Your task to perform on an android device: toggle airplane mode Image 0: 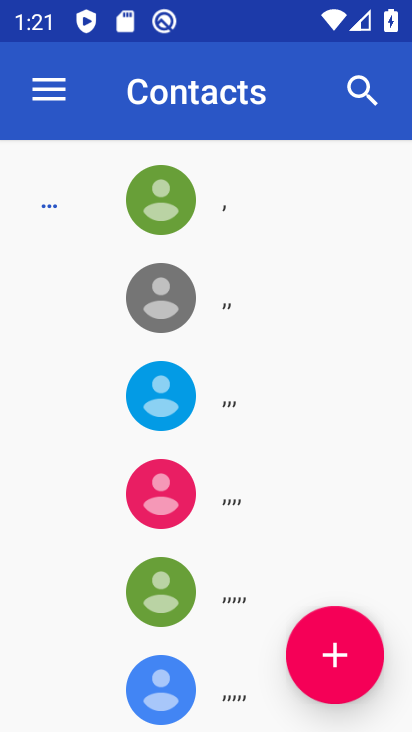
Step 0: press home button
Your task to perform on an android device: toggle airplane mode Image 1: 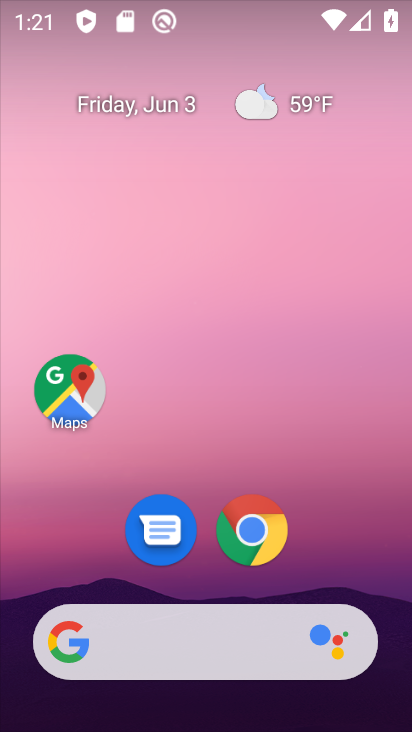
Step 1: drag from (321, 571) to (250, 0)
Your task to perform on an android device: toggle airplane mode Image 2: 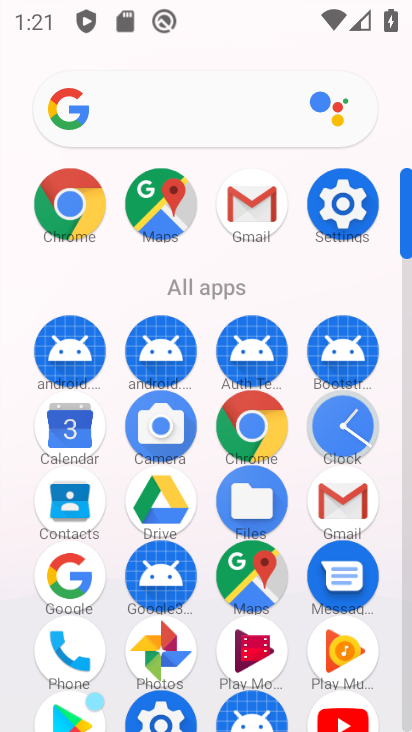
Step 2: click (333, 214)
Your task to perform on an android device: toggle airplane mode Image 3: 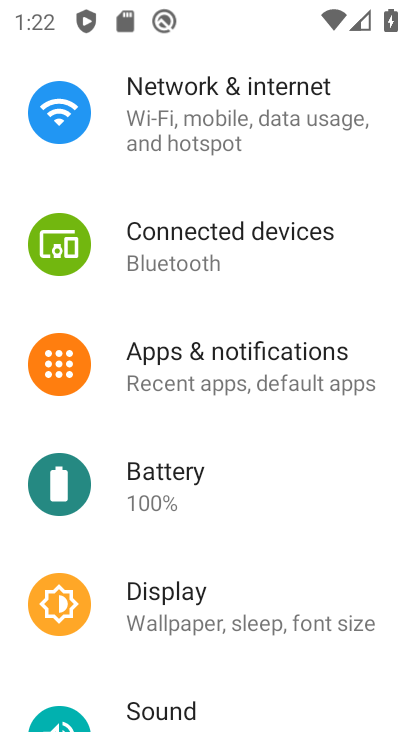
Step 3: drag from (203, 178) to (218, 592)
Your task to perform on an android device: toggle airplane mode Image 4: 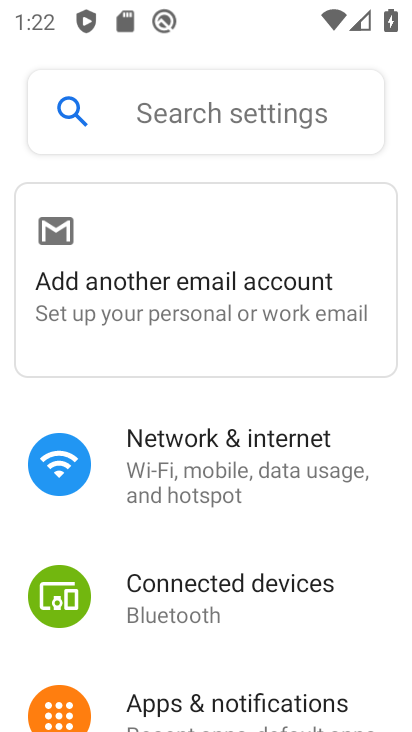
Step 4: click (211, 444)
Your task to perform on an android device: toggle airplane mode Image 5: 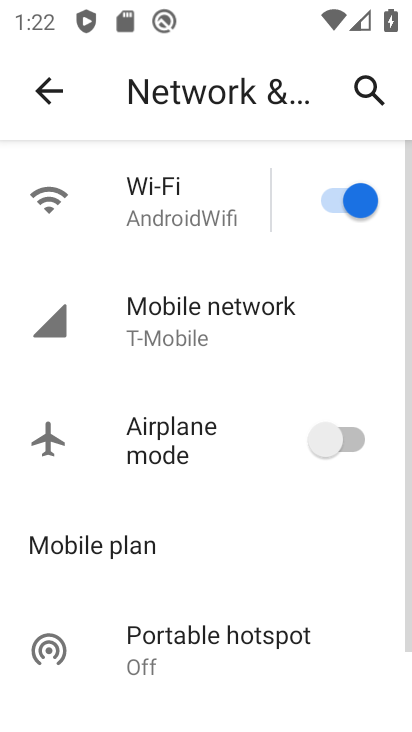
Step 5: click (346, 430)
Your task to perform on an android device: toggle airplane mode Image 6: 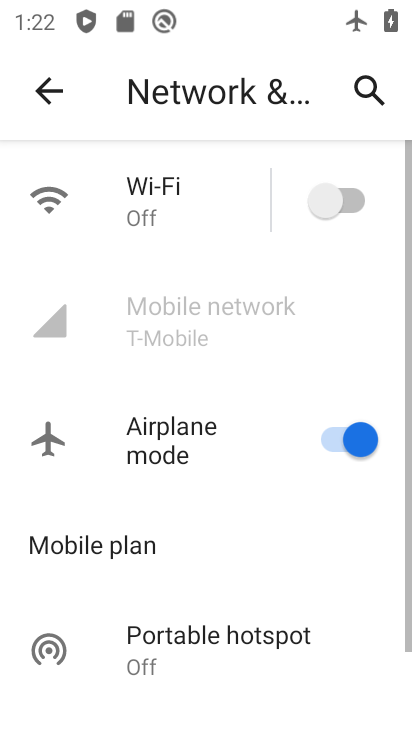
Step 6: task complete